Your task to perform on an android device: Open the calendar app, open the side menu, and click the "Day" option Image 0: 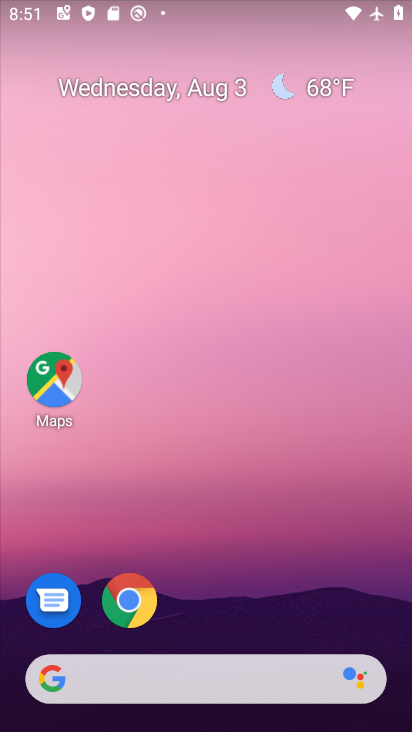
Step 0: drag from (227, 615) to (278, 90)
Your task to perform on an android device: Open the calendar app, open the side menu, and click the "Day" option Image 1: 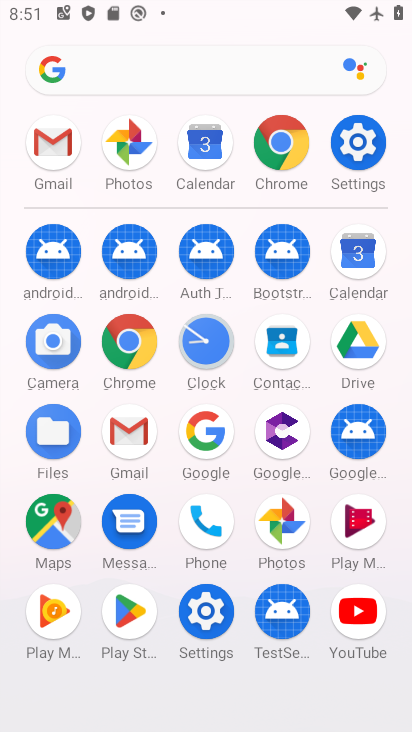
Step 1: click (372, 255)
Your task to perform on an android device: Open the calendar app, open the side menu, and click the "Day" option Image 2: 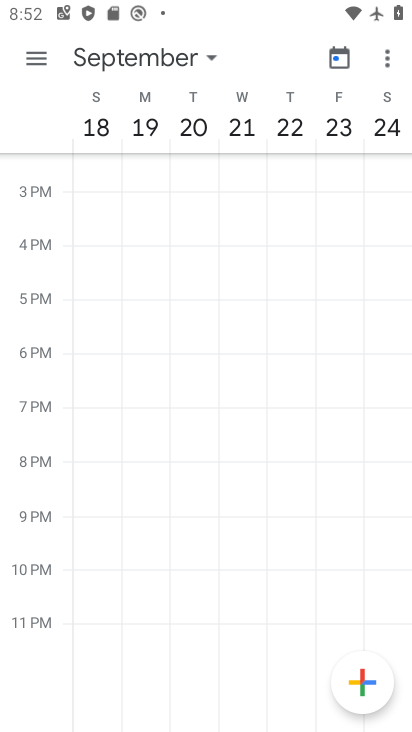
Step 2: click (32, 60)
Your task to perform on an android device: Open the calendar app, open the side menu, and click the "Day" option Image 3: 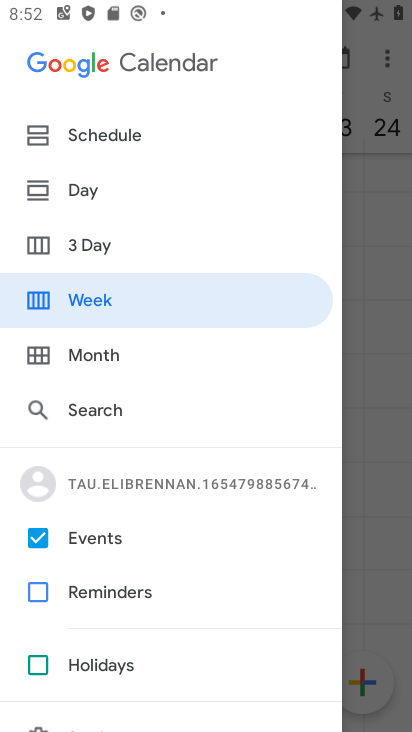
Step 3: click (88, 192)
Your task to perform on an android device: Open the calendar app, open the side menu, and click the "Day" option Image 4: 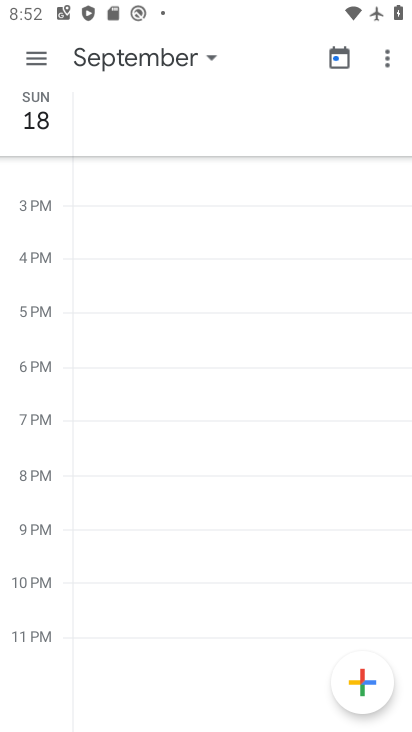
Step 4: task complete